Your task to perform on an android device: set default search engine in the chrome app Image 0: 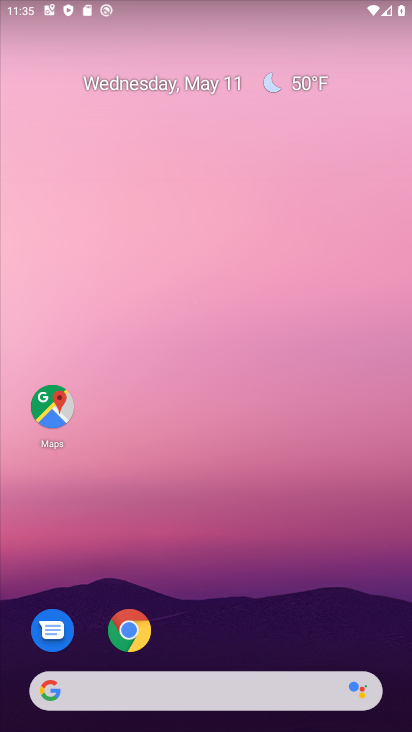
Step 0: click (126, 630)
Your task to perform on an android device: set default search engine in the chrome app Image 1: 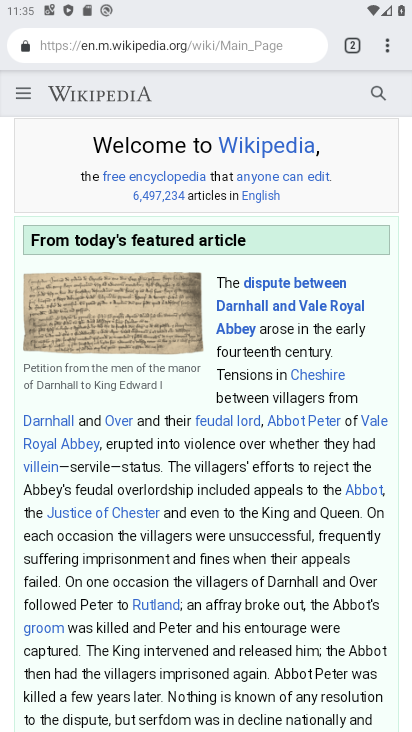
Step 1: click (389, 50)
Your task to perform on an android device: set default search engine in the chrome app Image 2: 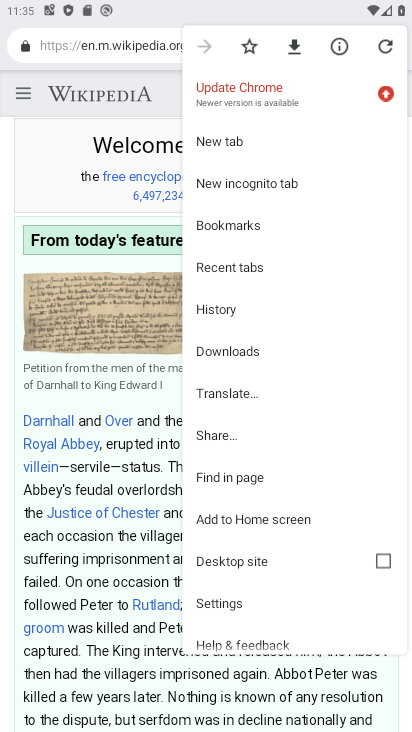
Step 2: click (224, 600)
Your task to perform on an android device: set default search engine in the chrome app Image 3: 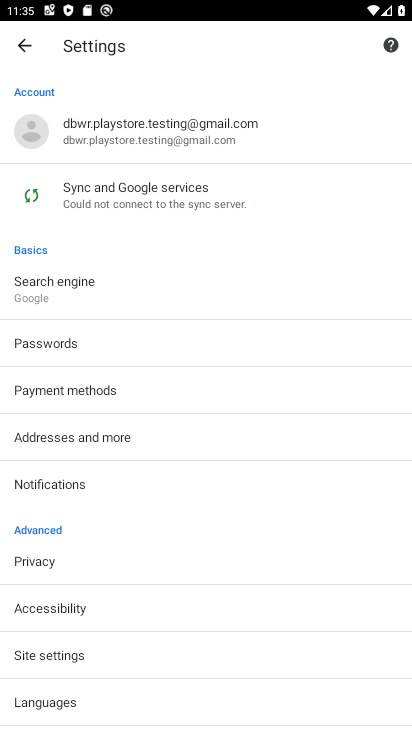
Step 3: click (59, 288)
Your task to perform on an android device: set default search engine in the chrome app Image 4: 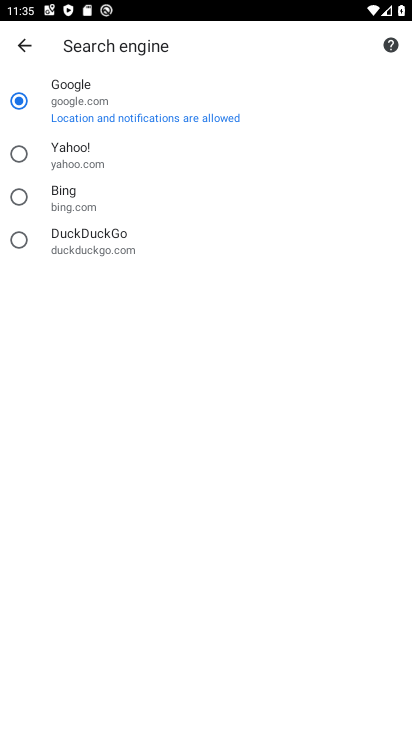
Step 4: click (16, 144)
Your task to perform on an android device: set default search engine in the chrome app Image 5: 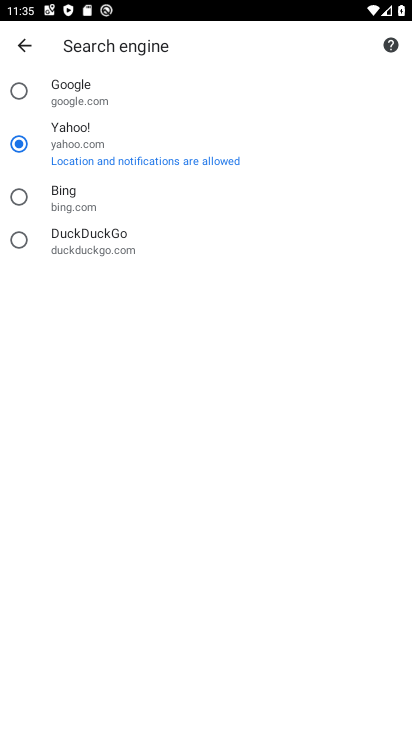
Step 5: task complete